Your task to perform on an android device: empty trash in the gmail app Image 0: 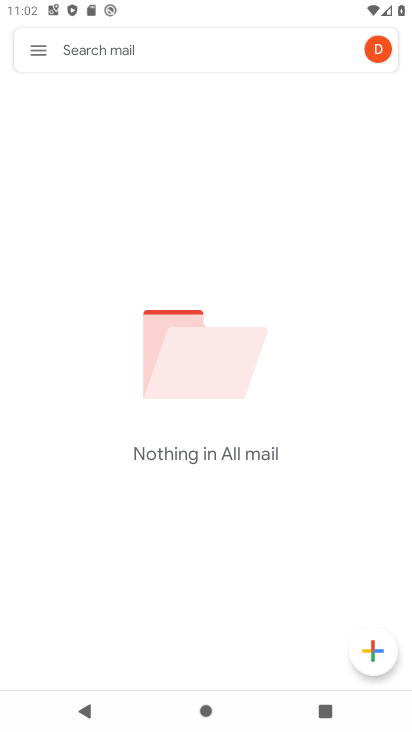
Step 0: press back button
Your task to perform on an android device: empty trash in the gmail app Image 1: 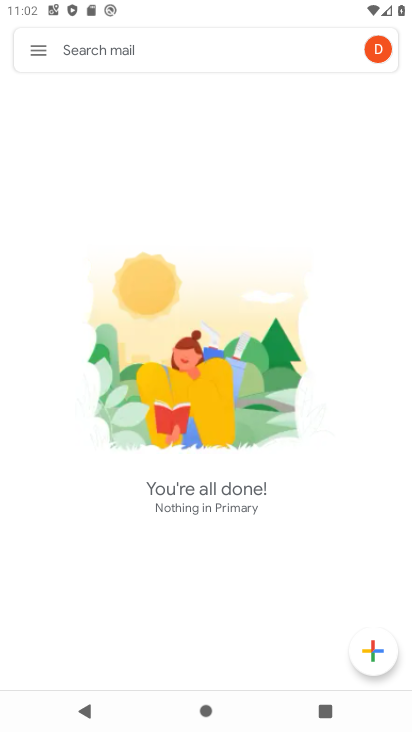
Step 1: click (48, 50)
Your task to perform on an android device: empty trash in the gmail app Image 2: 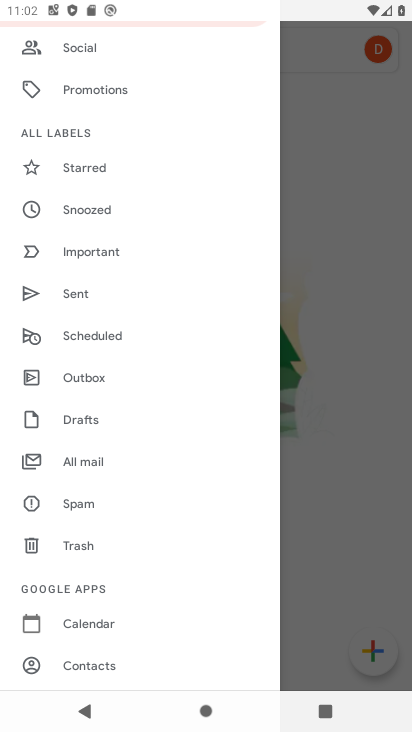
Step 2: drag from (196, 526) to (230, 293)
Your task to perform on an android device: empty trash in the gmail app Image 3: 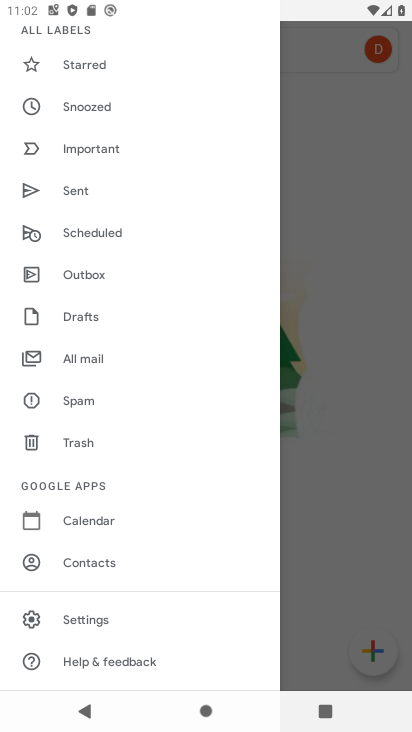
Step 3: click (99, 441)
Your task to perform on an android device: empty trash in the gmail app Image 4: 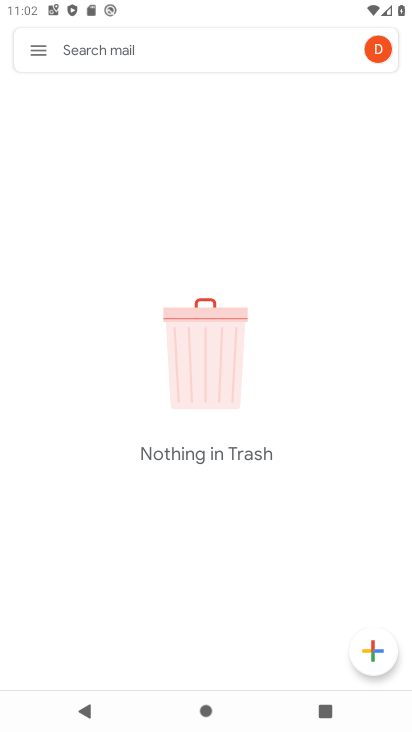
Step 4: task complete